Your task to perform on an android device: toggle location history Image 0: 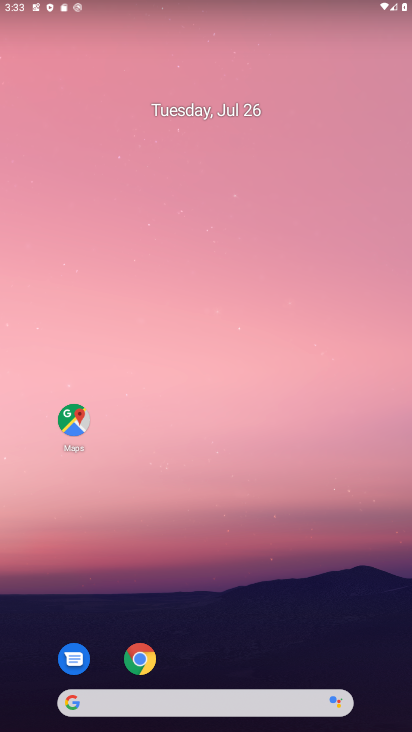
Step 0: drag from (300, 632) to (234, 250)
Your task to perform on an android device: toggle location history Image 1: 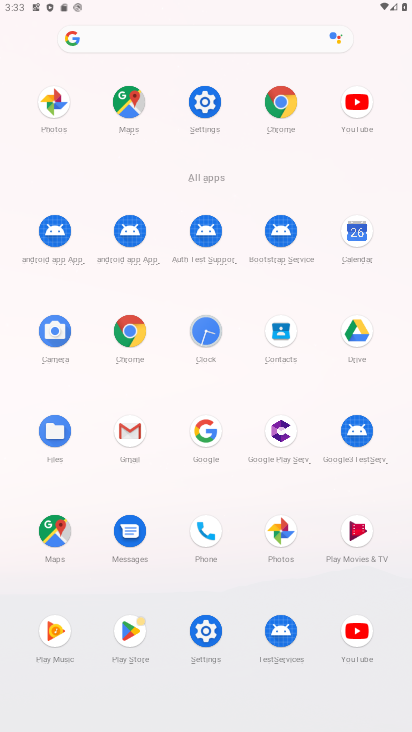
Step 1: click (202, 106)
Your task to perform on an android device: toggle location history Image 2: 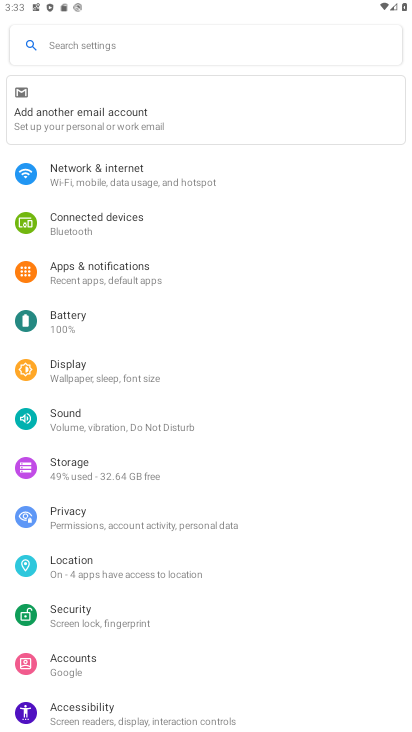
Step 2: click (118, 565)
Your task to perform on an android device: toggle location history Image 3: 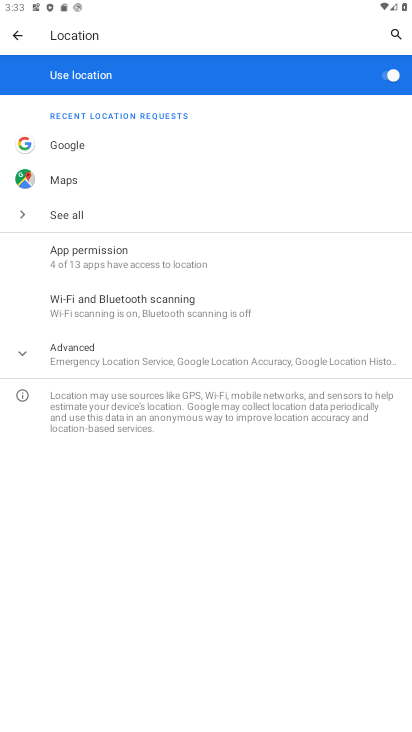
Step 3: click (171, 348)
Your task to perform on an android device: toggle location history Image 4: 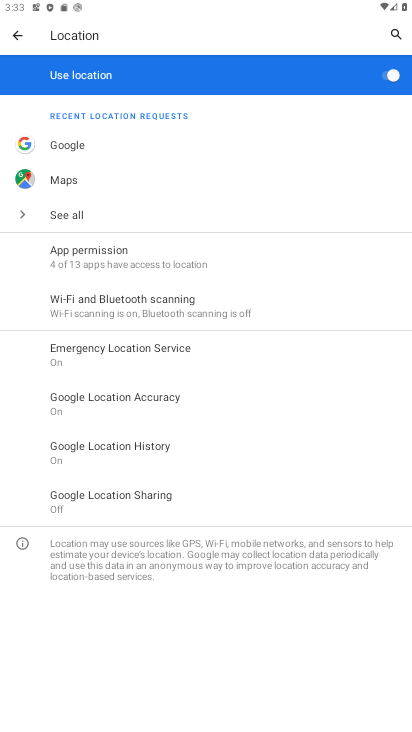
Step 4: click (145, 440)
Your task to perform on an android device: toggle location history Image 5: 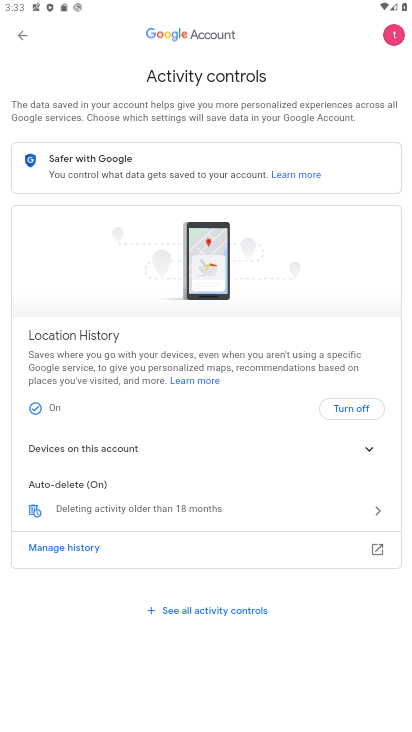
Step 5: click (352, 409)
Your task to perform on an android device: toggle location history Image 6: 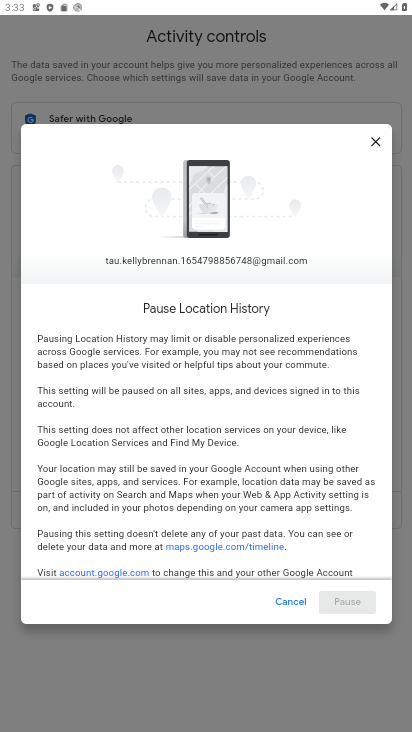
Step 6: drag from (295, 522) to (294, 149)
Your task to perform on an android device: toggle location history Image 7: 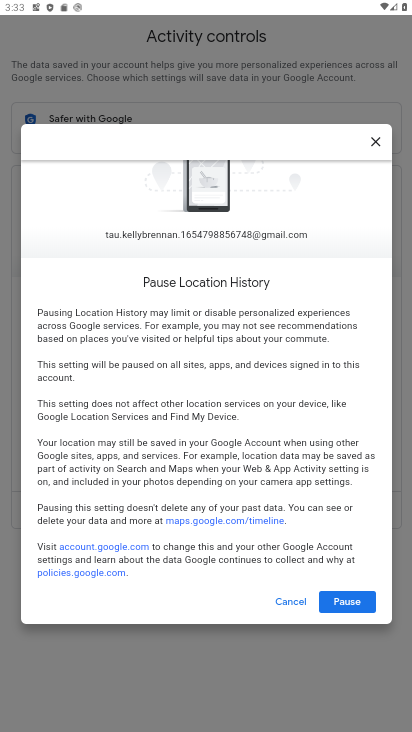
Step 7: click (343, 601)
Your task to perform on an android device: toggle location history Image 8: 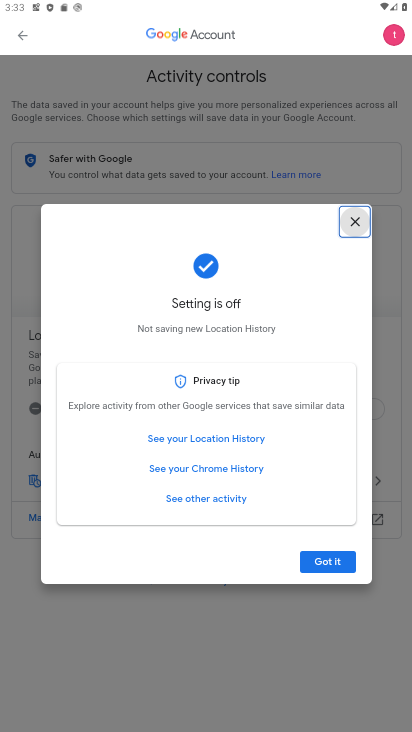
Step 8: click (341, 562)
Your task to perform on an android device: toggle location history Image 9: 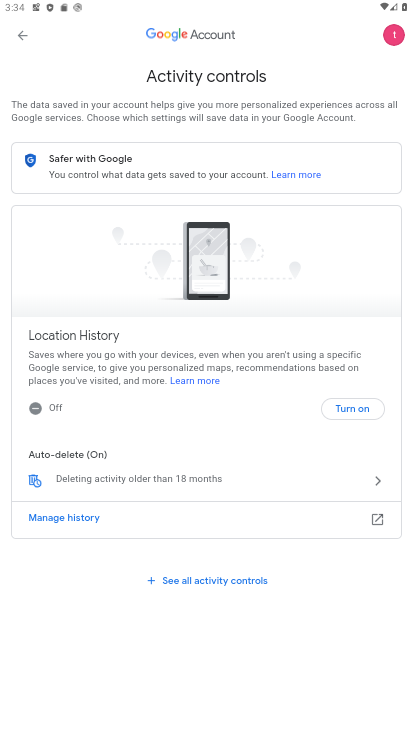
Step 9: task complete